Your task to perform on an android device: Show me the alarms in the clock app Image 0: 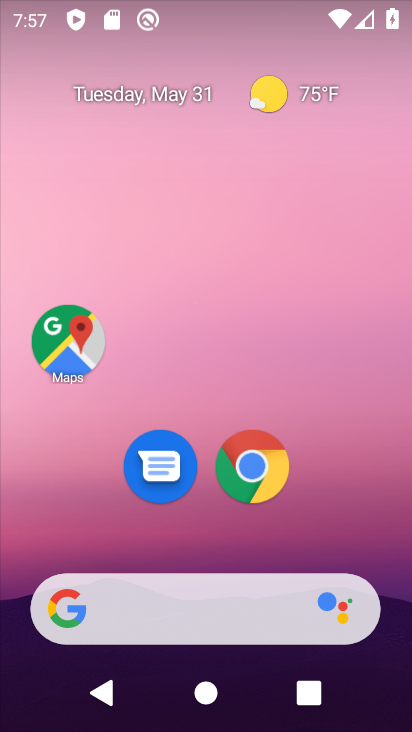
Step 0: drag from (193, 538) to (249, 170)
Your task to perform on an android device: Show me the alarms in the clock app Image 1: 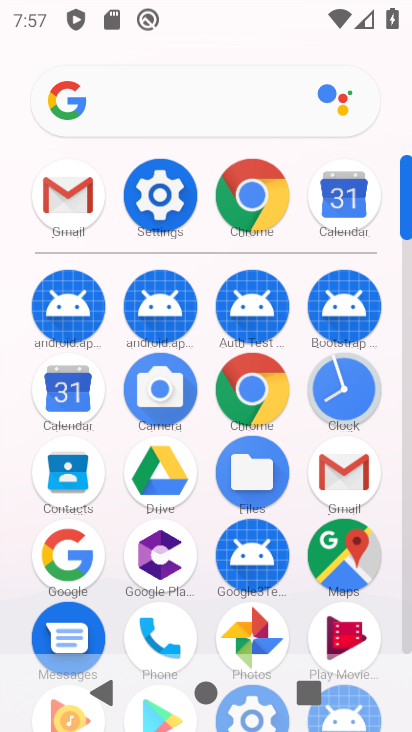
Step 1: drag from (206, 600) to (208, 257)
Your task to perform on an android device: Show me the alarms in the clock app Image 2: 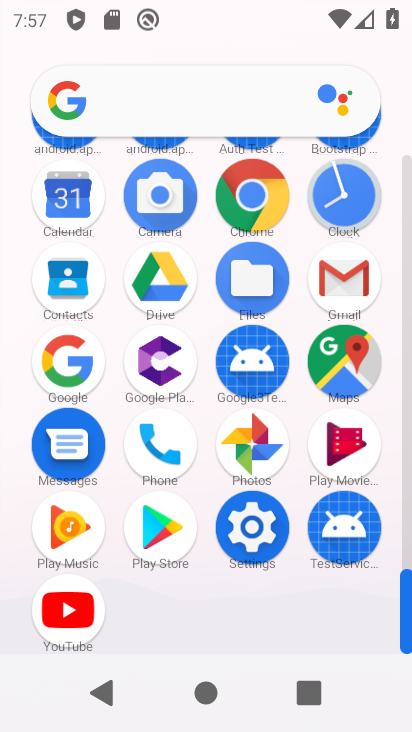
Step 2: click (348, 198)
Your task to perform on an android device: Show me the alarms in the clock app Image 3: 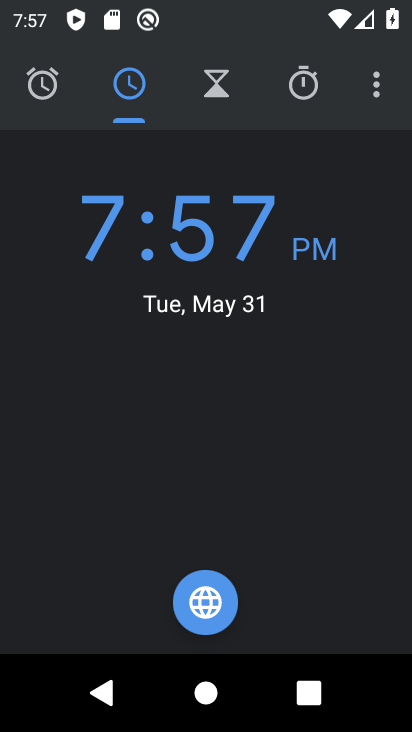
Step 3: click (36, 98)
Your task to perform on an android device: Show me the alarms in the clock app Image 4: 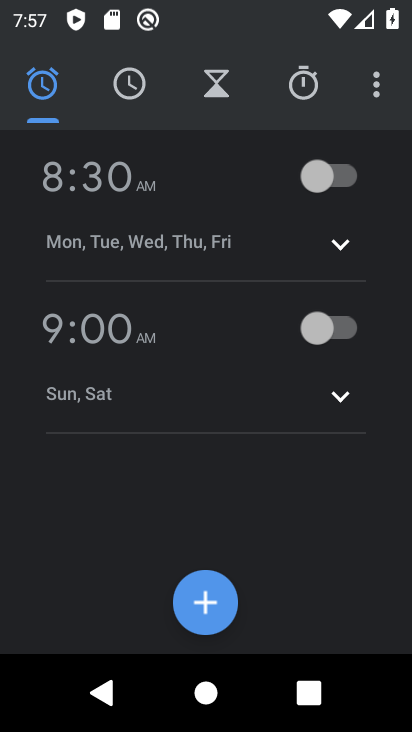
Step 4: task complete